Your task to perform on an android device: What's on the menu at Taco Bell? Image 0: 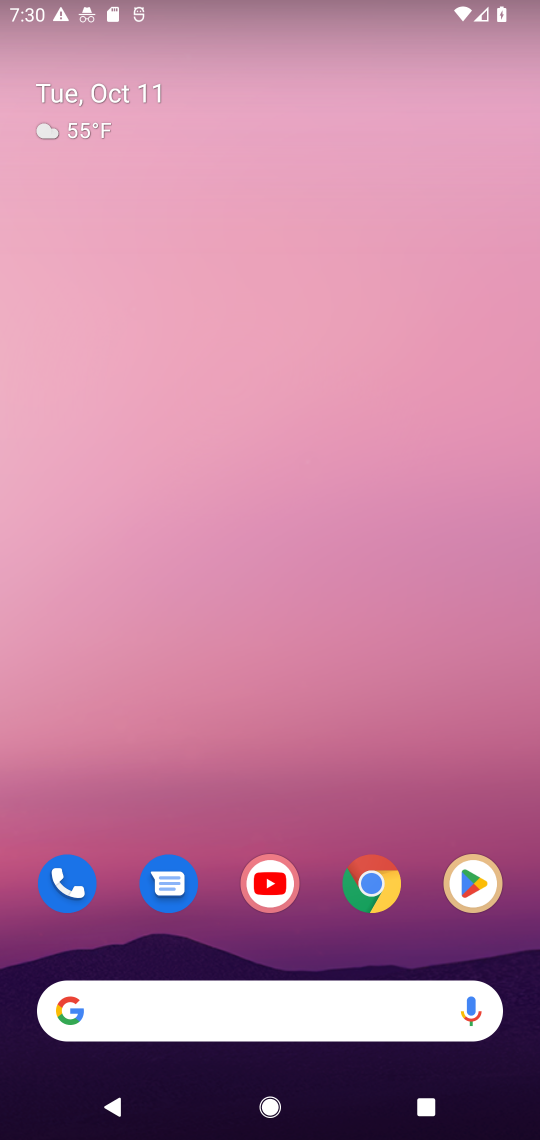
Step 0: drag from (325, 818) to (369, 33)
Your task to perform on an android device: What's on the menu at Taco Bell? Image 1: 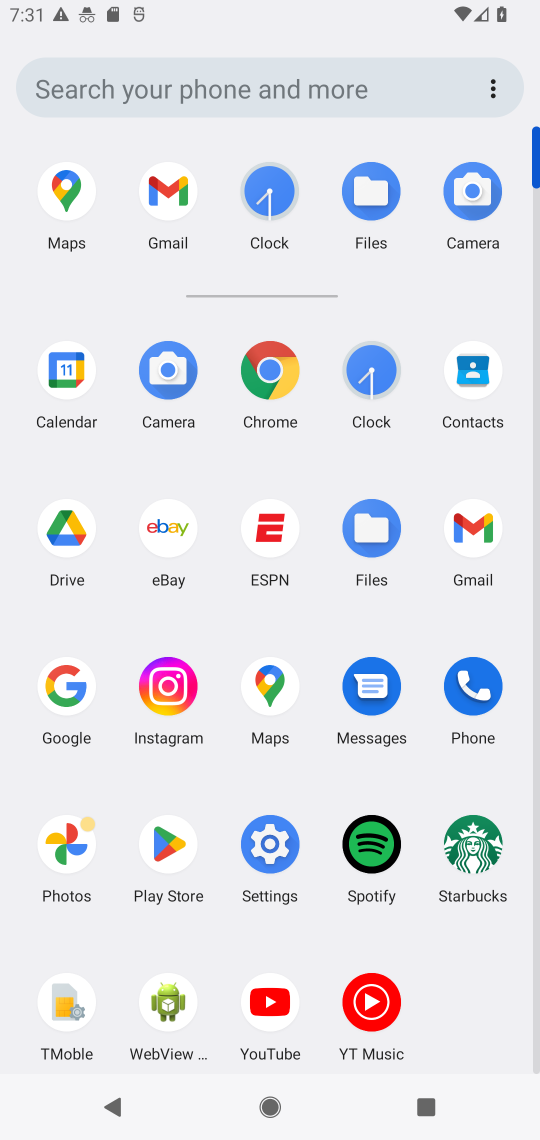
Step 1: click (276, 359)
Your task to perform on an android device: What's on the menu at Taco Bell? Image 2: 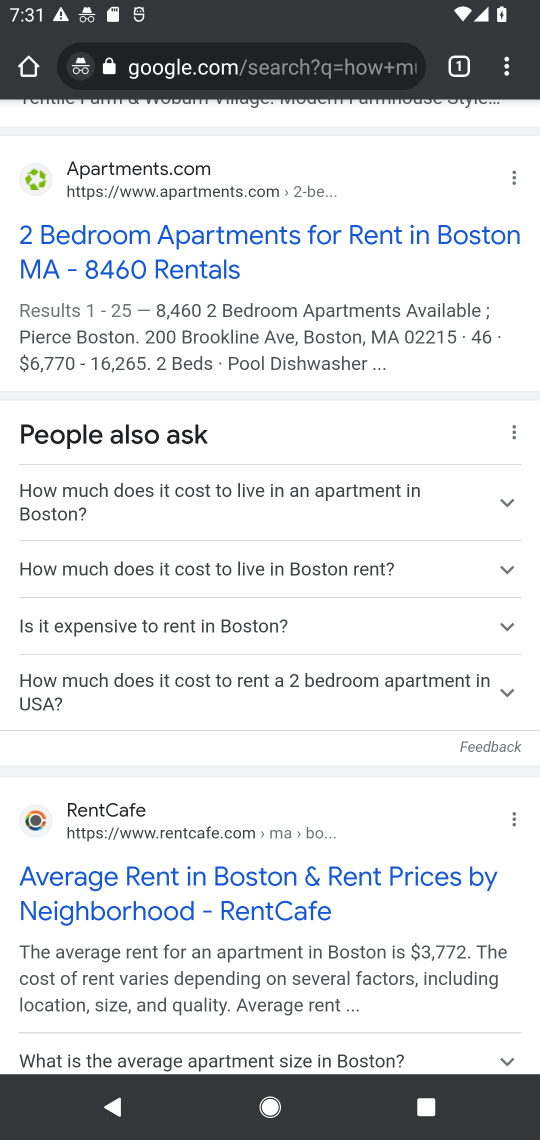
Step 2: click (273, 79)
Your task to perform on an android device: What's on the menu at Taco Bell? Image 3: 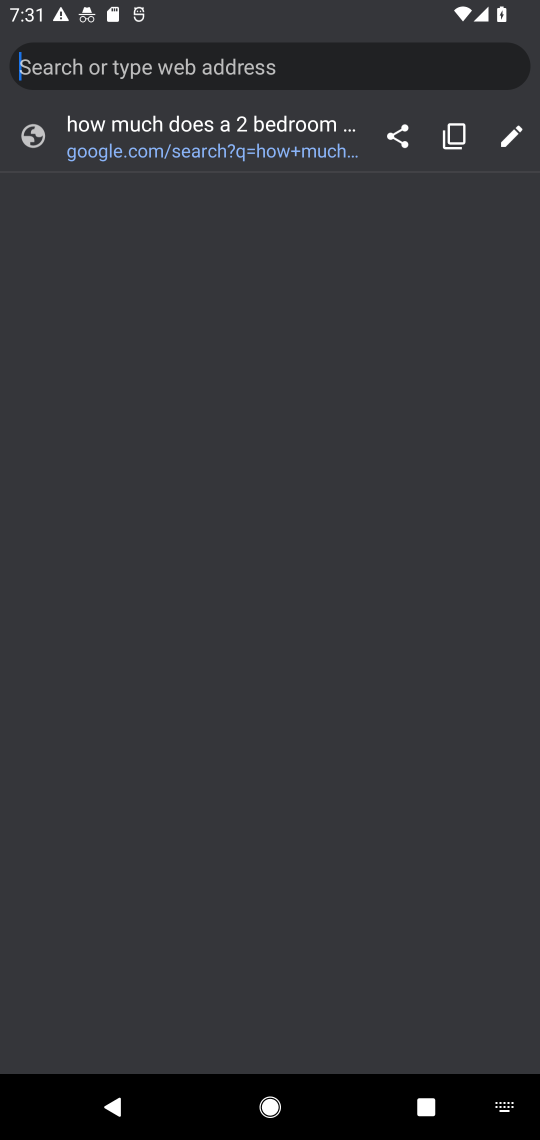
Step 3: type "What's on the menu at Taco Bell?"
Your task to perform on an android device: What's on the menu at Taco Bell? Image 4: 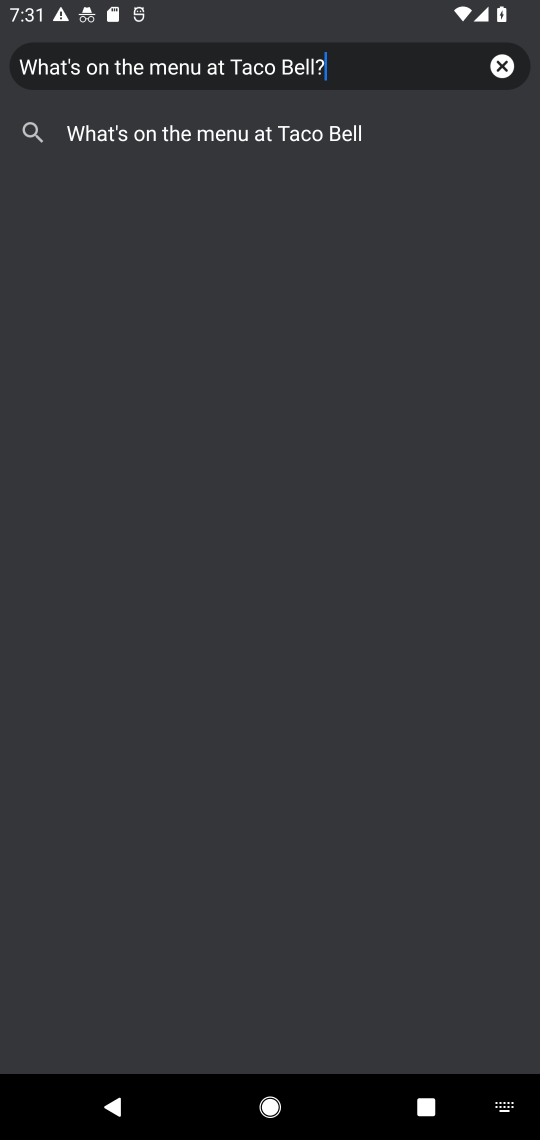
Step 4: press enter
Your task to perform on an android device: What's on the menu at Taco Bell? Image 5: 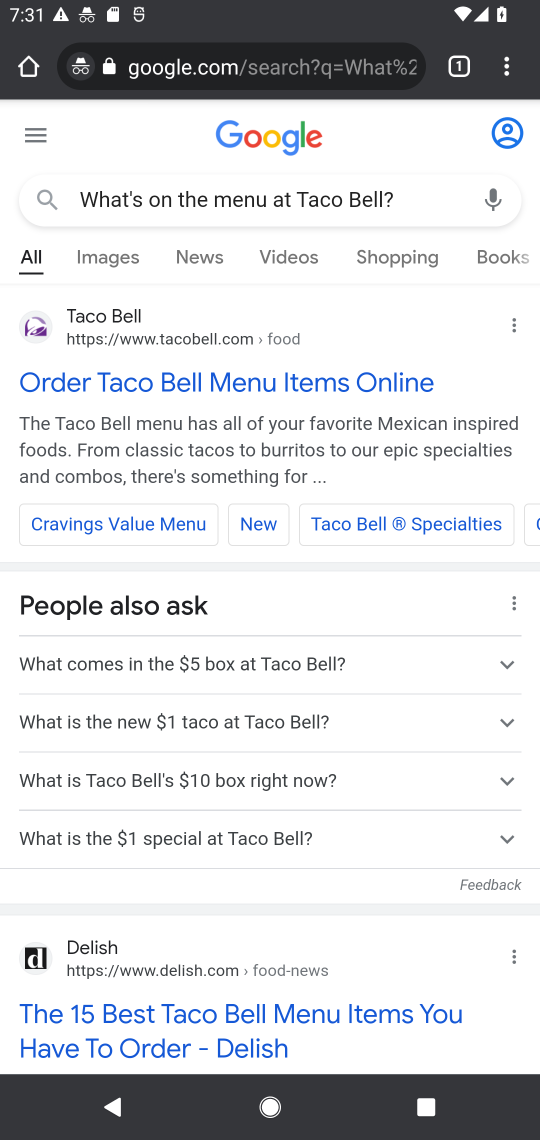
Step 5: click (285, 846)
Your task to perform on an android device: What's on the menu at Taco Bell? Image 6: 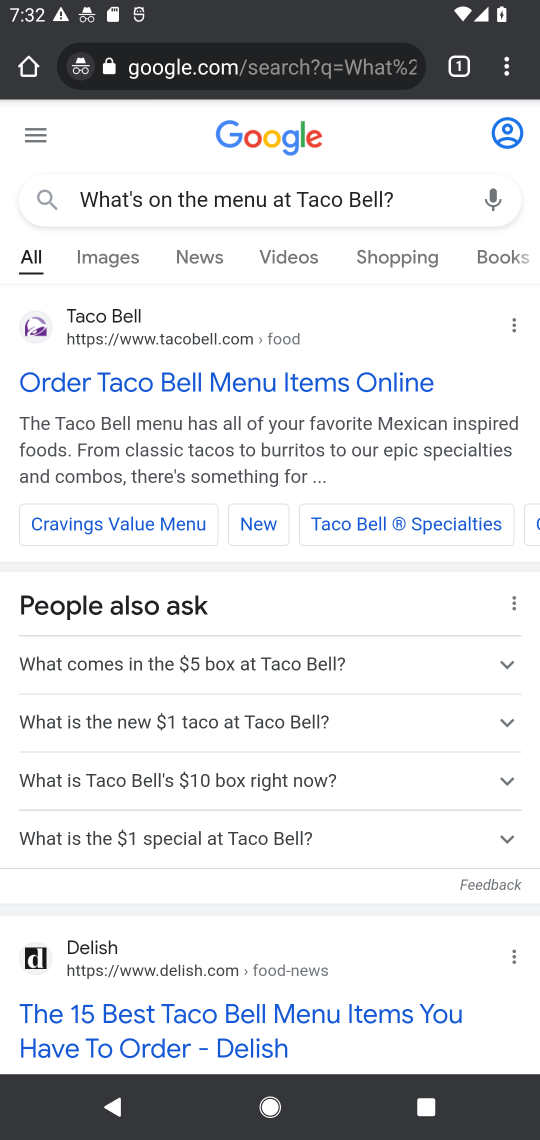
Step 6: click (273, 390)
Your task to perform on an android device: What's on the menu at Taco Bell? Image 7: 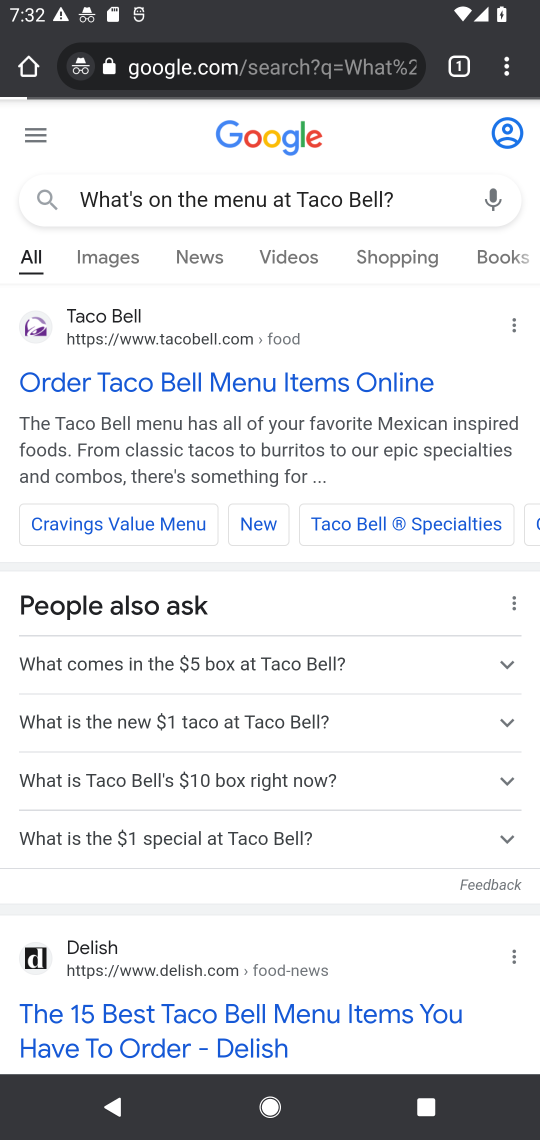
Step 7: click (203, 386)
Your task to perform on an android device: What's on the menu at Taco Bell? Image 8: 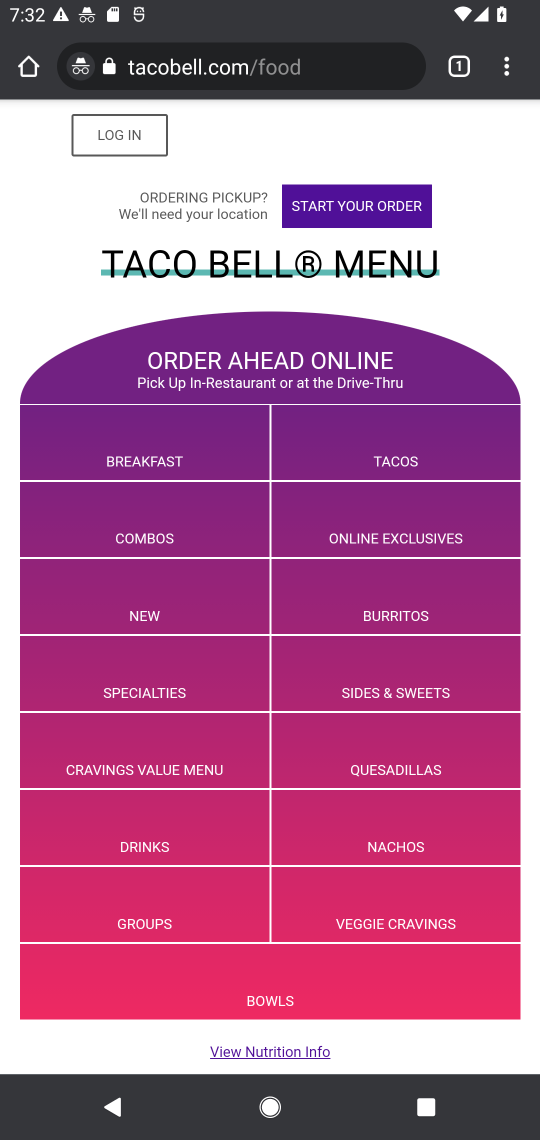
Step 8: task complete